Your task to perform on an android device: all mails in gmail Image 0: 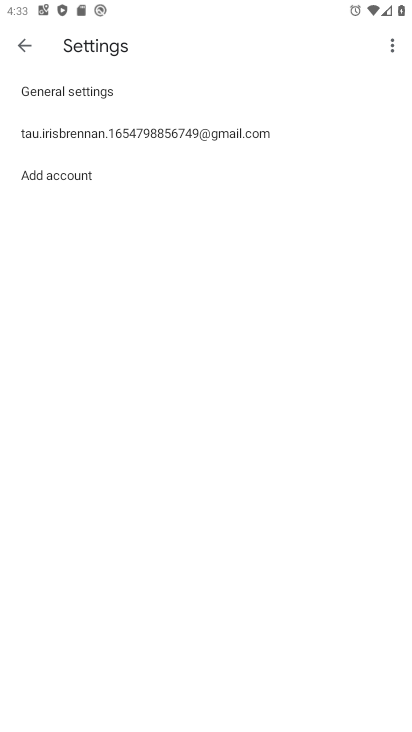
Step 0: press back button
Your task to perform on an android device: all mails in gmail Image 1: 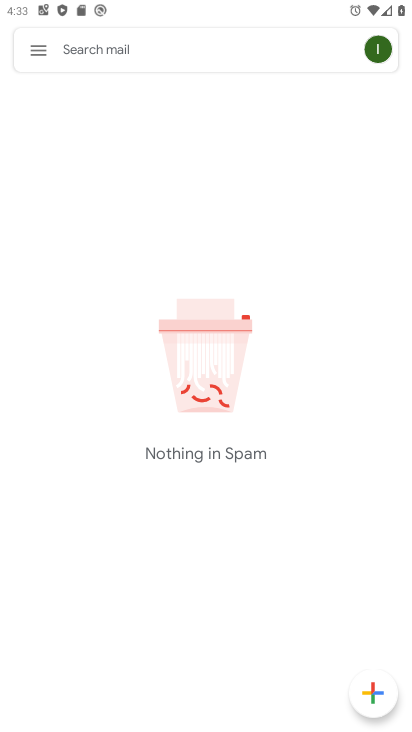
Step 1: press home button
Your task to perform on an android device: all mails in gmail Image 2: 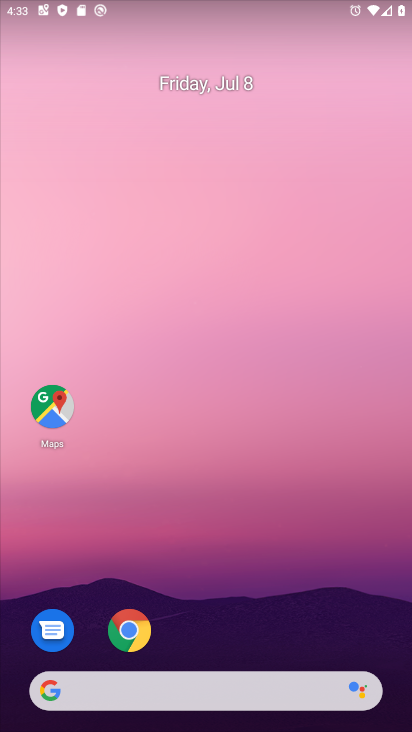
Step 2: drag from (192, 633) to (267, 209)
Your task to perform on an android device: all mails in gmail Image 3: 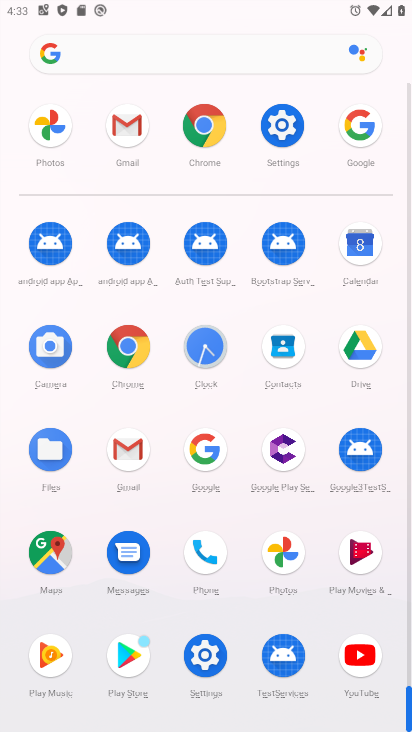
Step 3: click (127, 123)
Your task to perform on an android device: all mails in gmail Image 4: 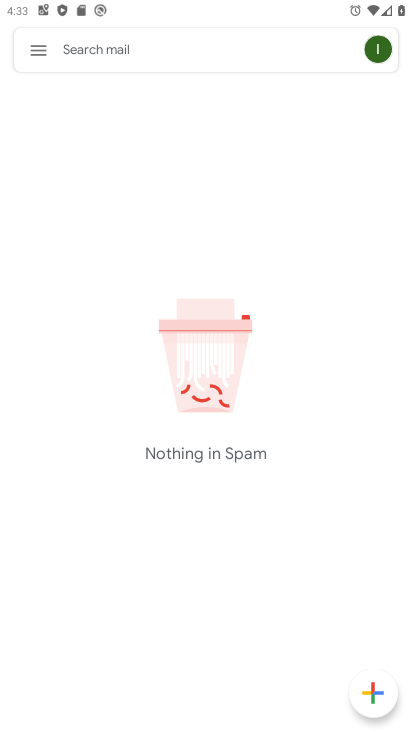
Step 4: click (35, 54)
Your task to perform on an android device: all mails in gmail Image 5: 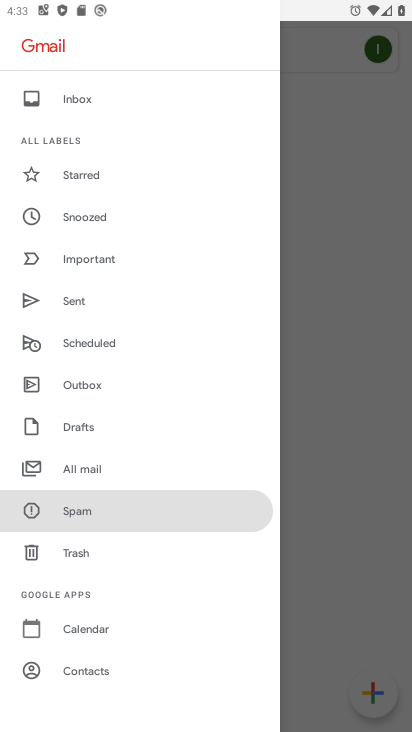
Step 5: click (92, 220)
Your task to perform on an android device: all mails in gmail Image 6: 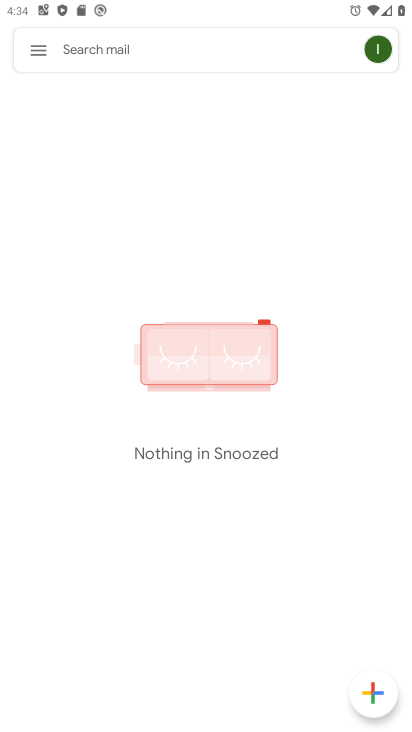
Step 6: click (36, 54)
Your task to perform on an android device: all mails in gmail Image 7: 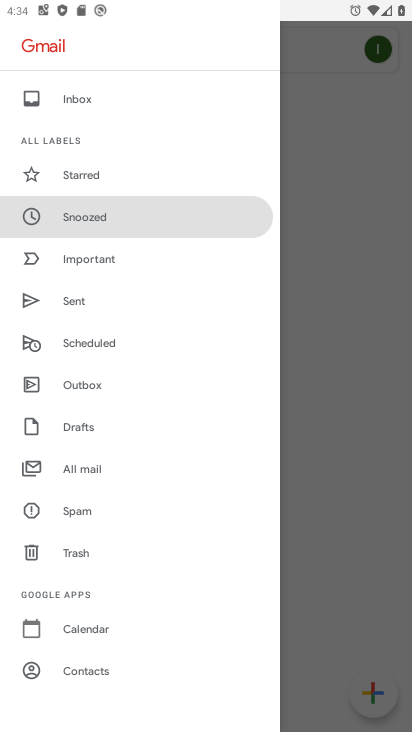
Step 7: click (82, 251)
Your task to perform on an android device: all mails in gmail Image 8: 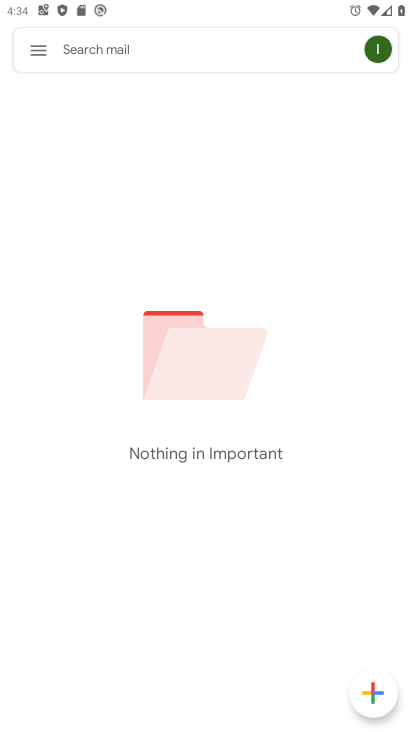
Step 8: click (43, 52)
Your task to perform on an android device: all mails in gmail Image 9: 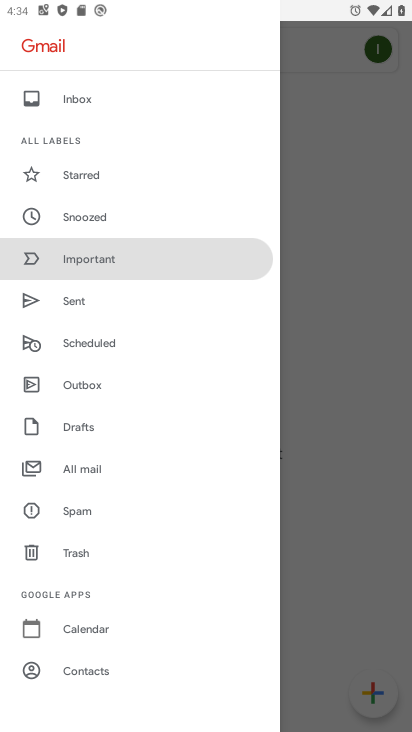
Step 9: click (85, 339)
Your task to perform on an android device: all mails in gmail Image 10: 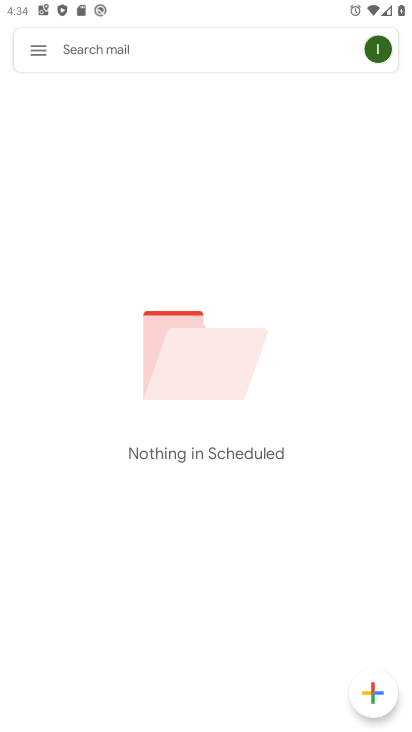
Step 10: click (85, 339)
Your task to perform on an android device: all mails in gmail Image 11: 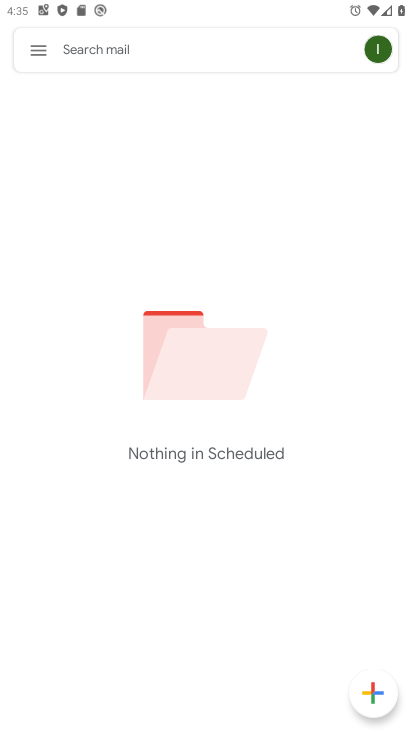
Step 11: click (26, 46)
Your task to perform on an android device: all mails in gmail Image 12: 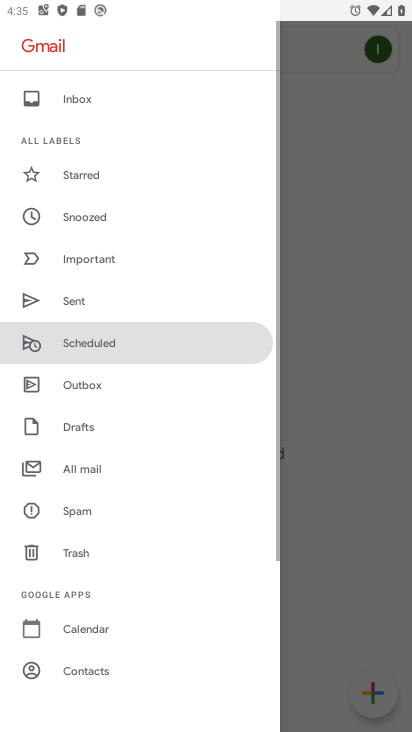
Step 12: click (123, 476)
Your task to perform on an android device: all mails in gmail Image 13: 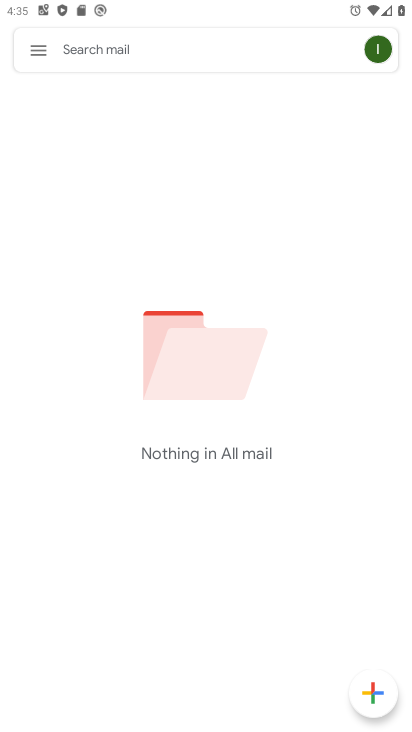
Step 13: task complete